Your task to perform on an android device: change the clock display to show seconds Image 0: 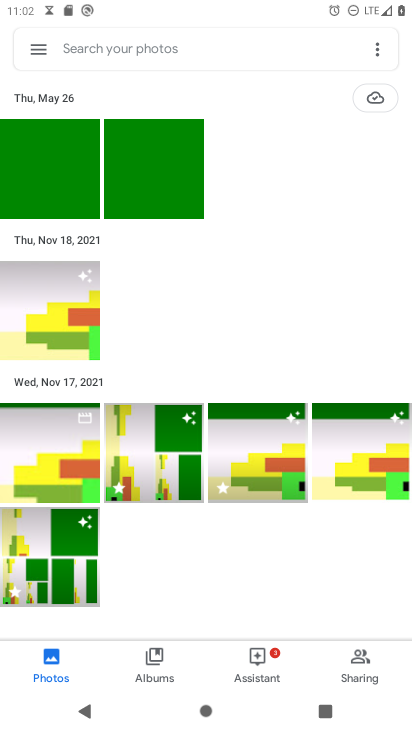
Step 0: press home button
Your task to perform on an android device: change the clock display to show seconds Image 1: 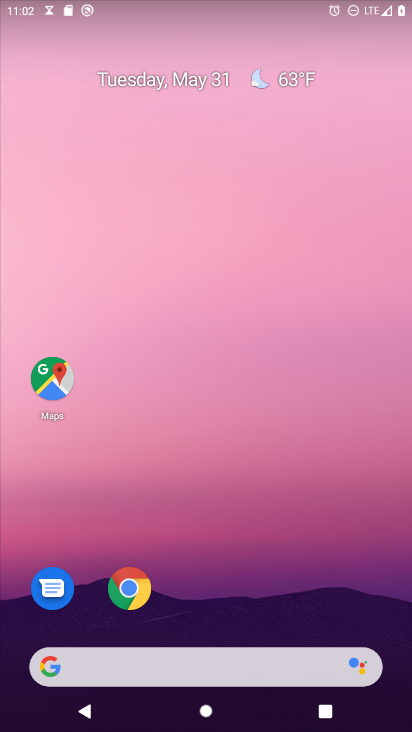
Step 1: drag from (268, 590) to (275, 101)
Your task to perform on an android device: change the clock display to show seconds Image 2: 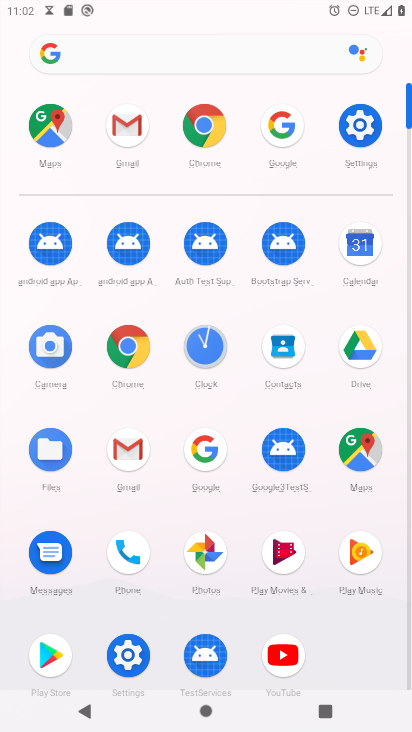
Step 2: click (205, 349)
Your task to perform on an android device: change the clock display to show seconds Image 3: 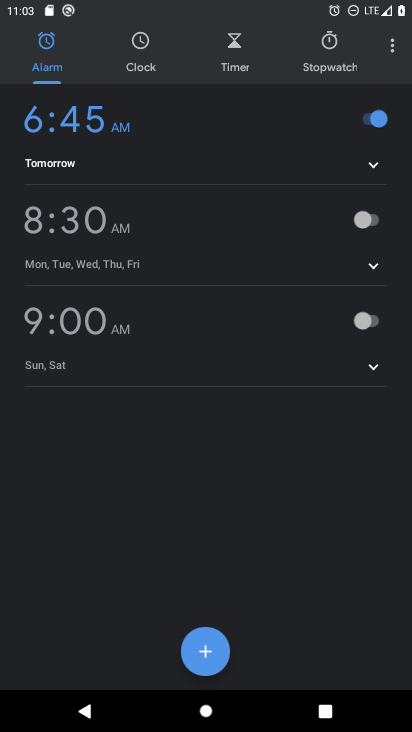
Step 3: click (390, 48)
Your task to perform on an android device: change the clock display to show seconds Image 4: 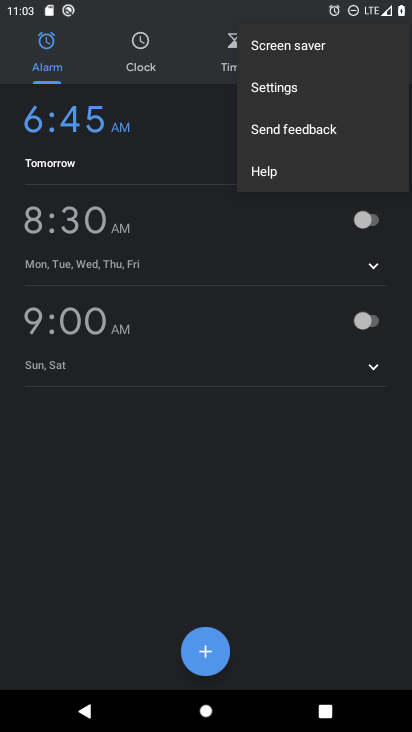
Step 4: click (274, 90)
Your task to perform on an android device: change the clock display to show seconds Image 5: 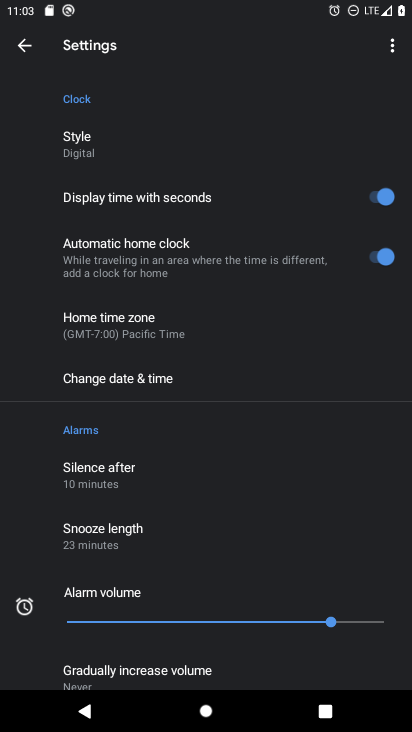
Step 5: click (387, 197)
Your task to perform on an android device: change the clock display to show seconds Image 6: 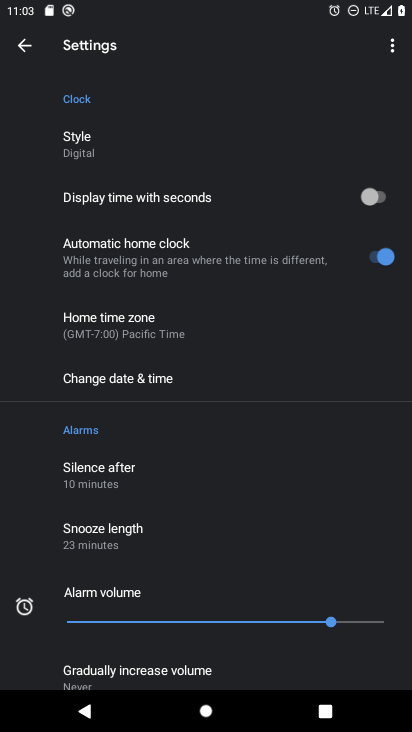
Step 6: click (387, 197)
Your task to perform on an android device: change the clock display to show seconds Image 7: 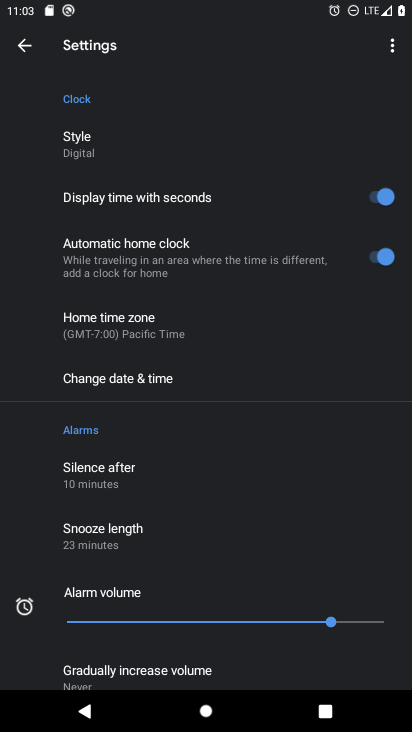
Step 7: task complete